Your task to perform on an android device: Empty the shopping cart on amazon.com. Add "logitech g pro" to the cart on amazon.com, then select checkout. Image 0: 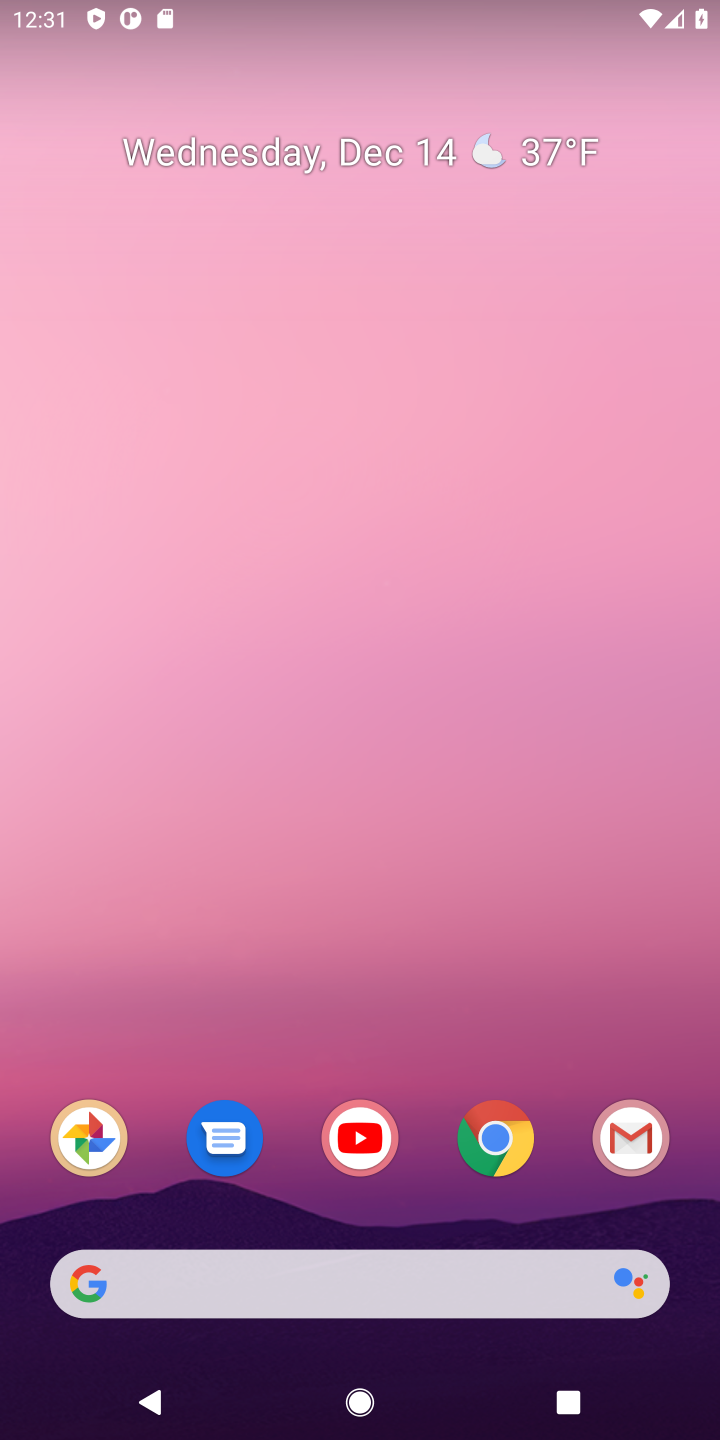
Step 0: click (498, 1145)
Your task to perform on an android device: Empty the shopping cart on amazon.com. Add "logitech g pro" to the cart on amazon.com, then select checkout. Image 1: 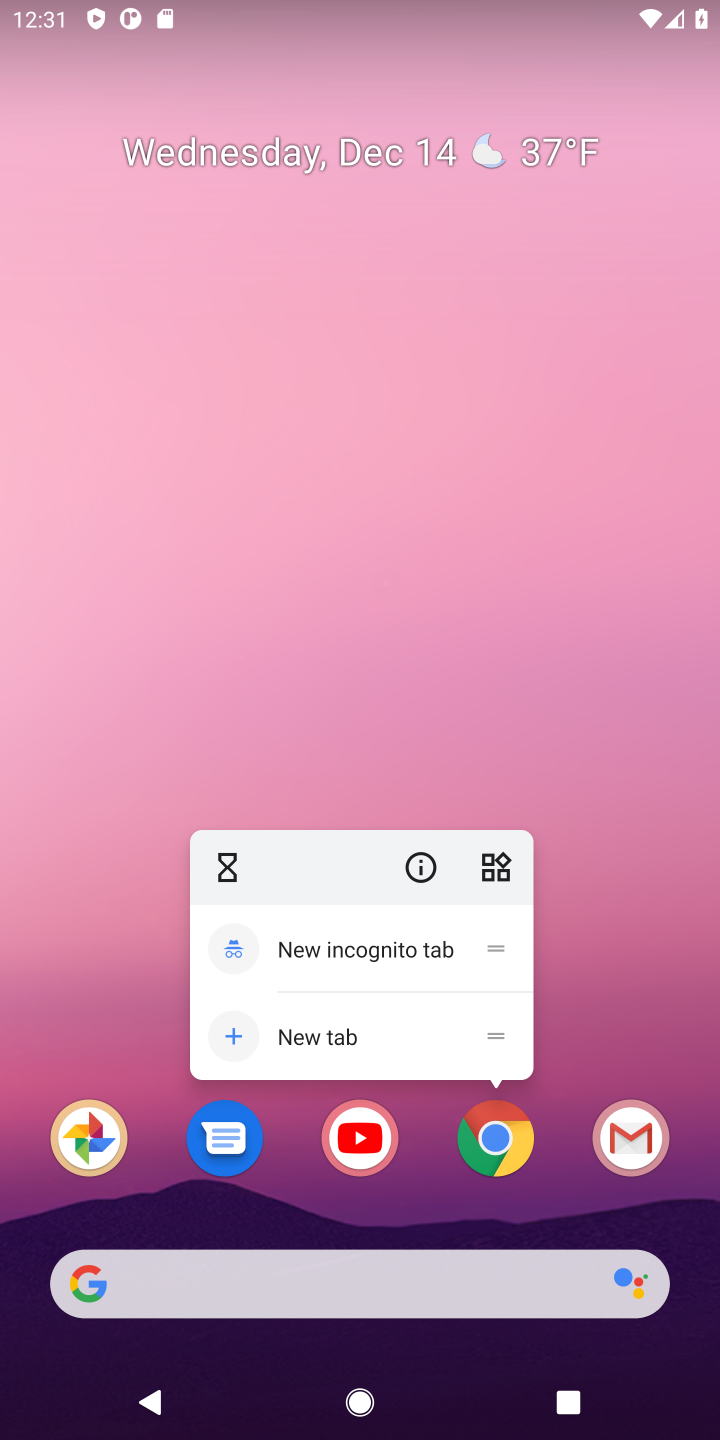
Step 1: click (493, 1124)
Your task to perform on an android device: Empty the shopping cart on amazon.com. Add "logitech g pro" to the cart on amazon.com, then select checkout. Image 2: 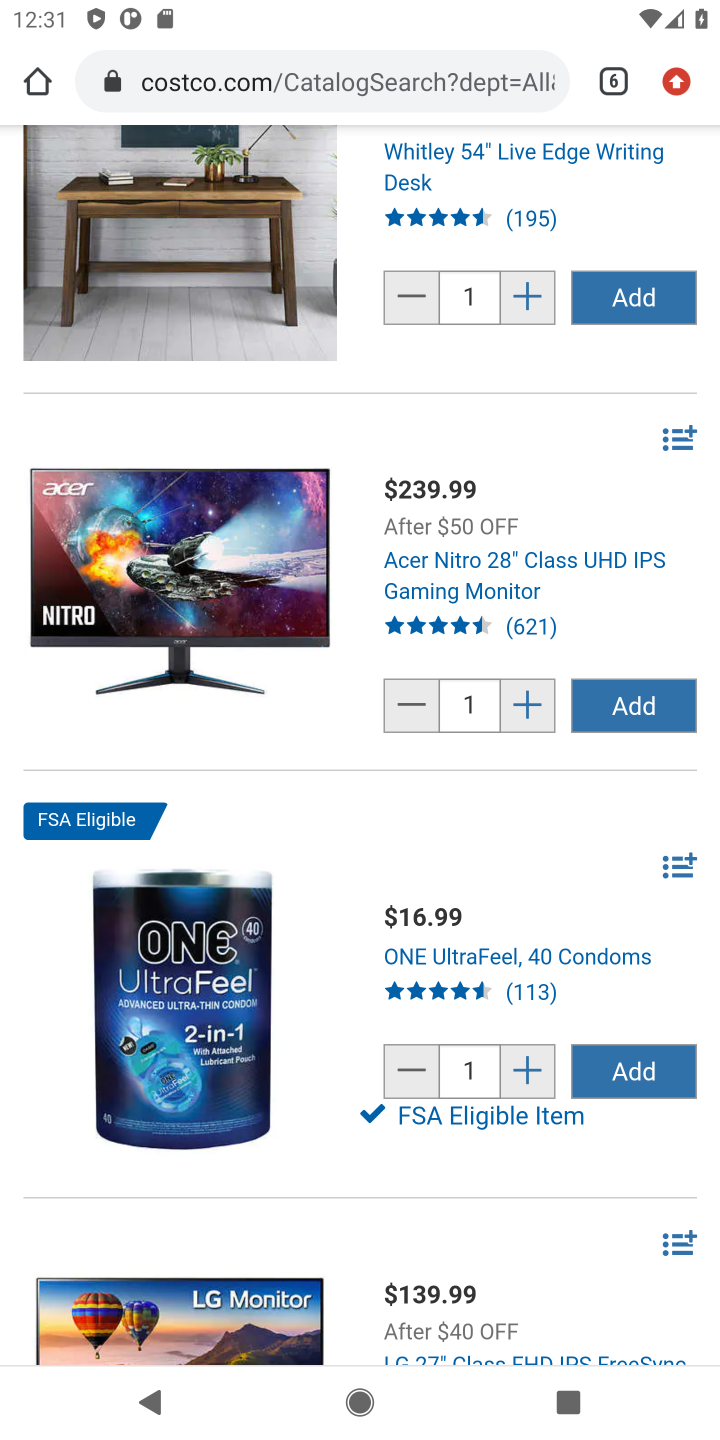
Step 2: click (615, 70)
Your task to perform on an android device: Empty the shopping cart on amazon.com. Add "logitech g pro" to the cart on amazon.com, then select checkout. Image 3: 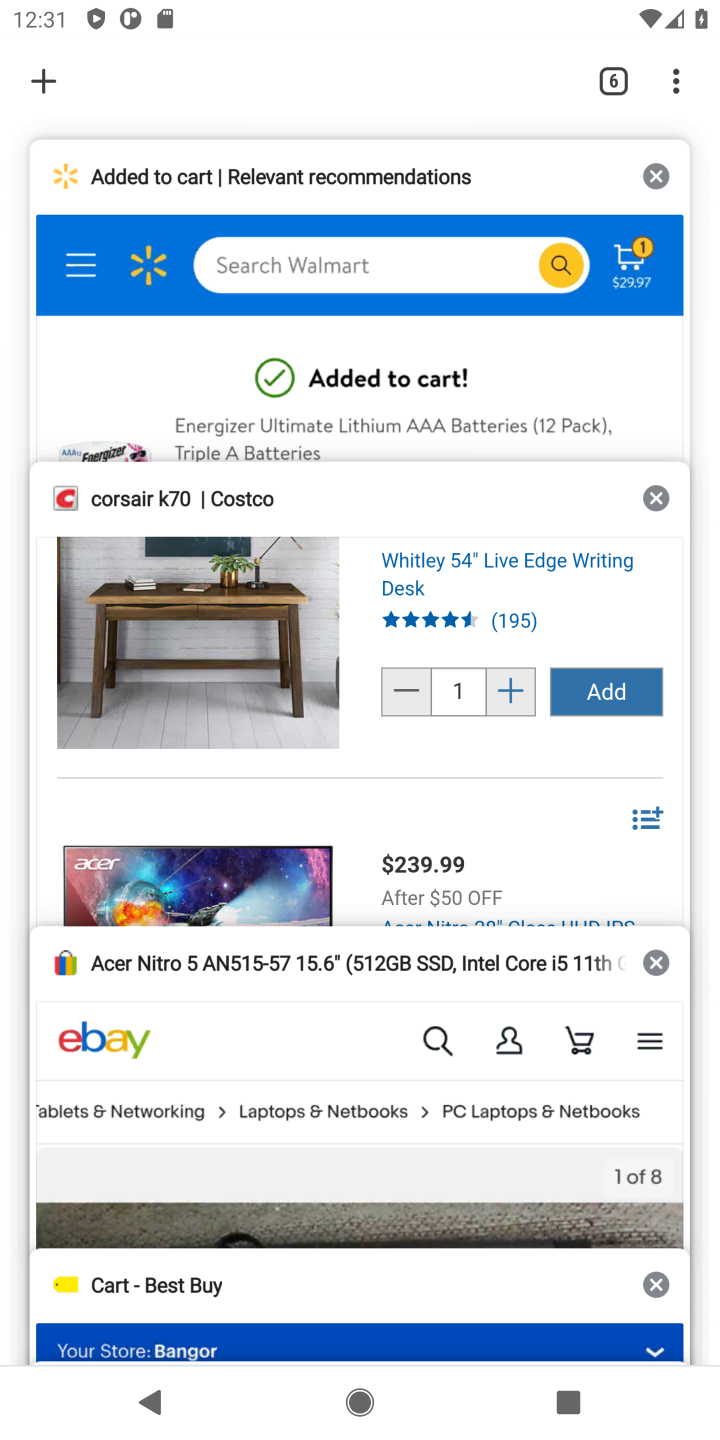
Step 3: drag from (239, 1308) to (376, 707)
Your task to perform on an android device: Empty the shopping cart on amazon.com. Add "logitech g pro" to the cart on amazon.com, then select checkout. Image 4: 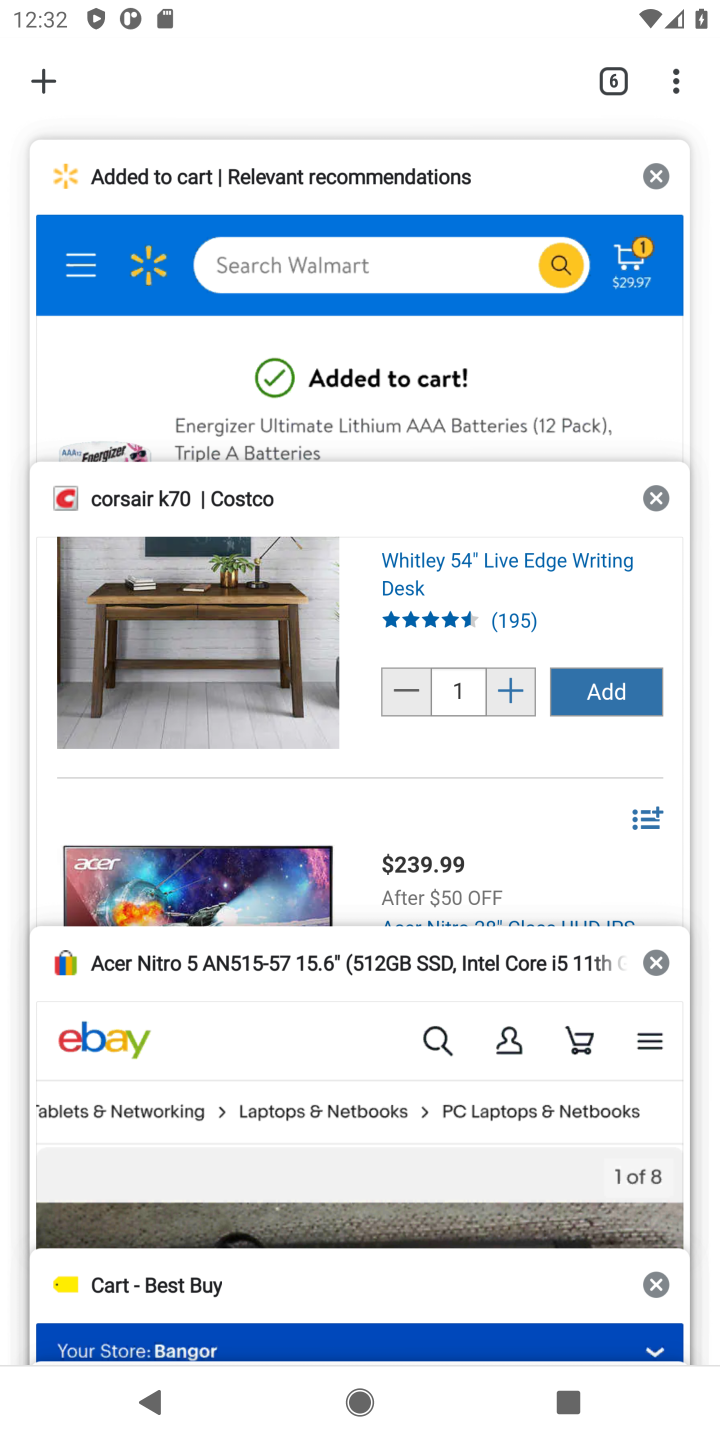
Step 4: drag from (330, 1322) to (458, 480)
Your task to perform on an android device: Empty the shopping cart on amazon.com. Add "logitech g pro" to the cart on amazon.com, then select checkout. Image 5: 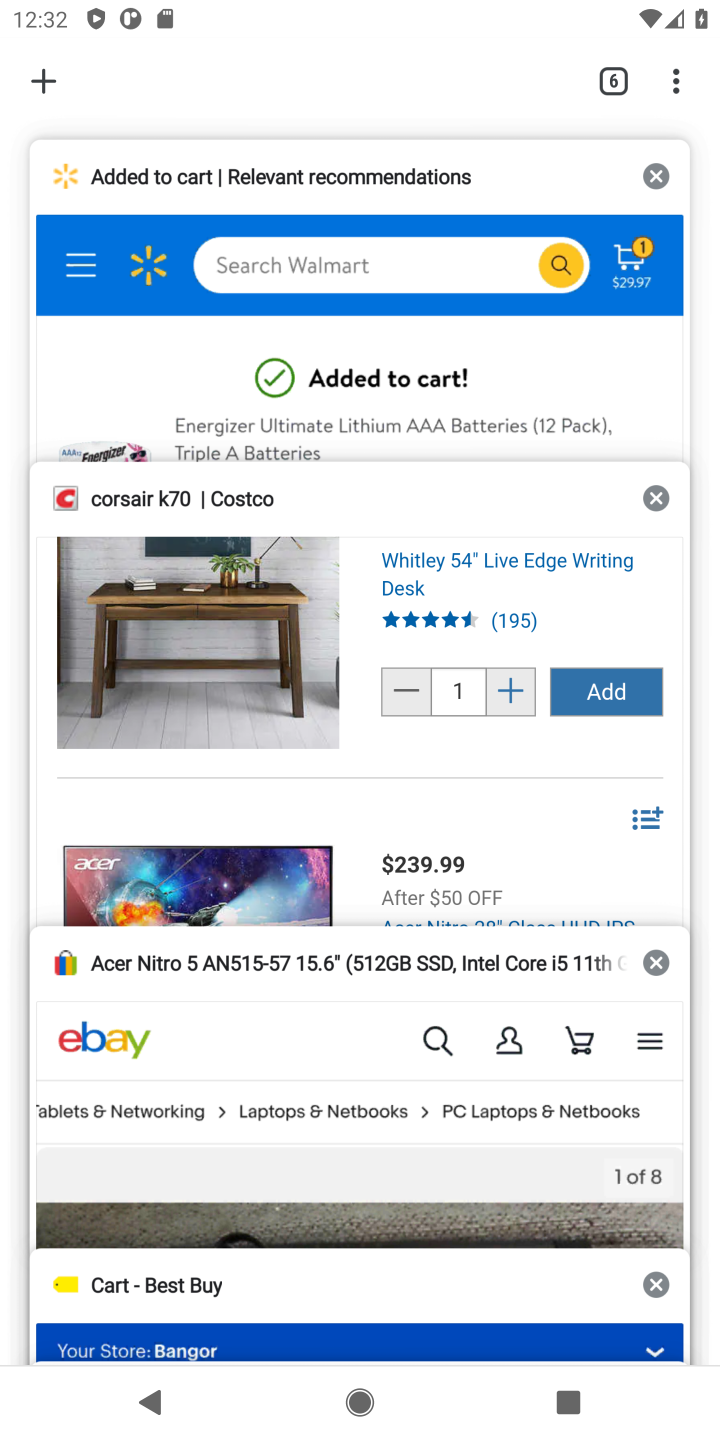
Step 5: drag from (389, 1271) to (388, 458)
Your task to perform on an android device: Empty the shopping cart on amazon.com. Add "logitech g pro" to the cart on amazon.com, then select checkout. Image 6: 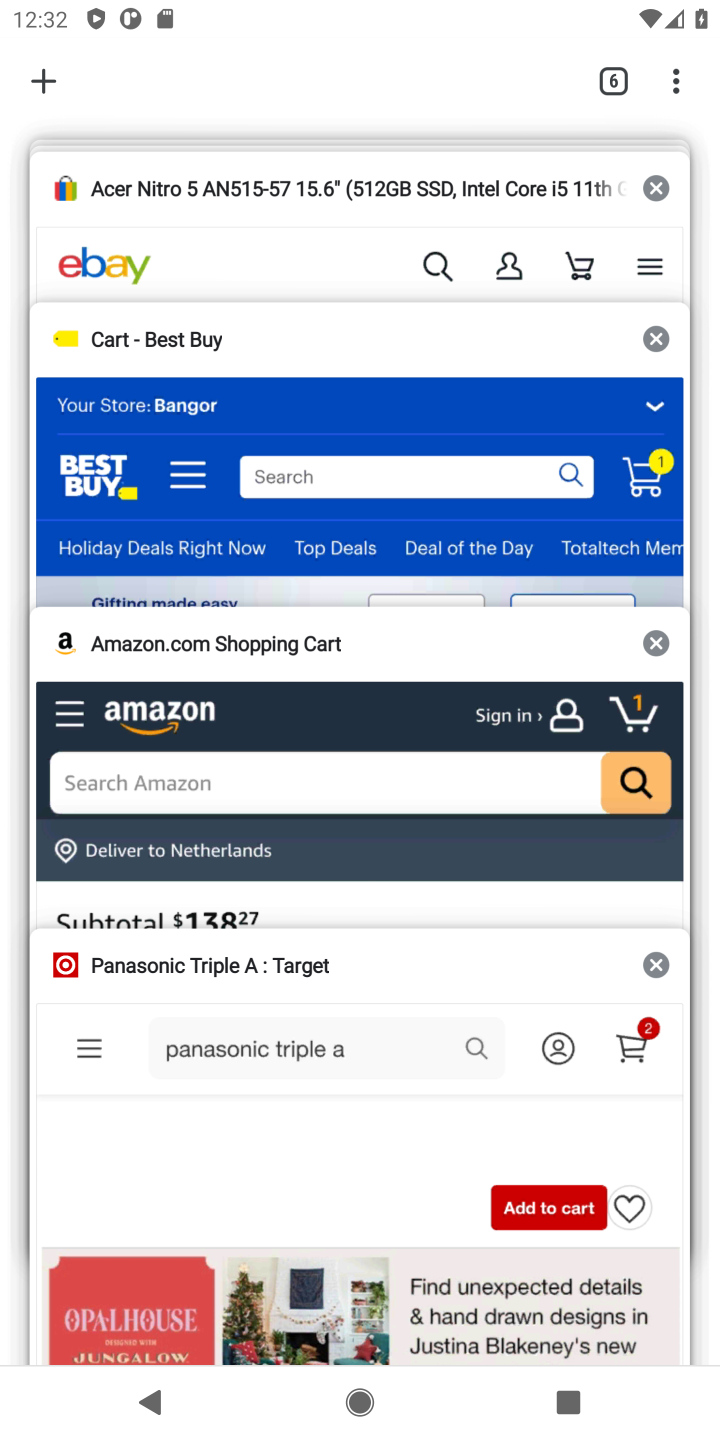
Step 6: click (402, 773)
Your task to perform on an android device: Empty the shopping cart on amazon.com. Add "logitech g pro" to the cart on amazon.com, then select checkout. Image 7: 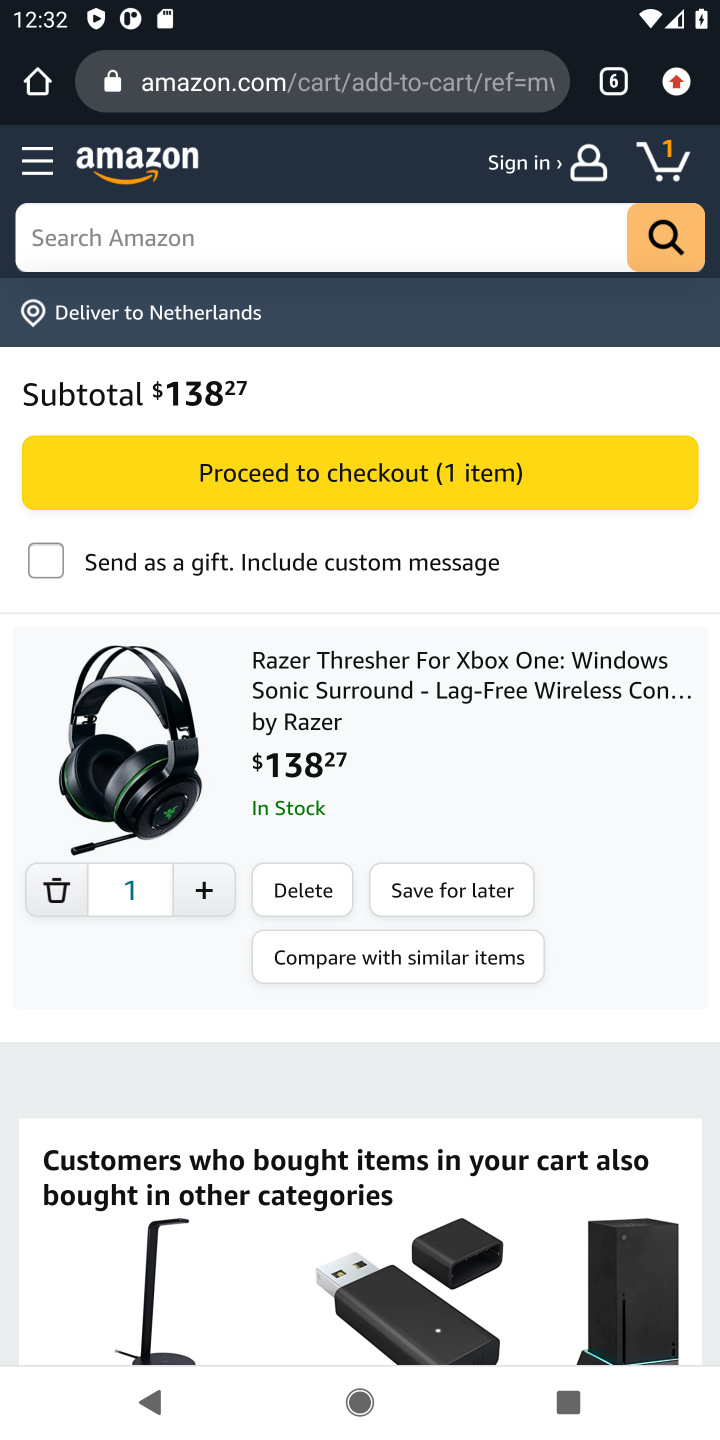
Step 7: click (304, 891)
Your task to perform on an android device: Empty the shopping cart on amazon.com. Add "logitech g pro" to the cart on amazon.com, then select checkout. Image 8: 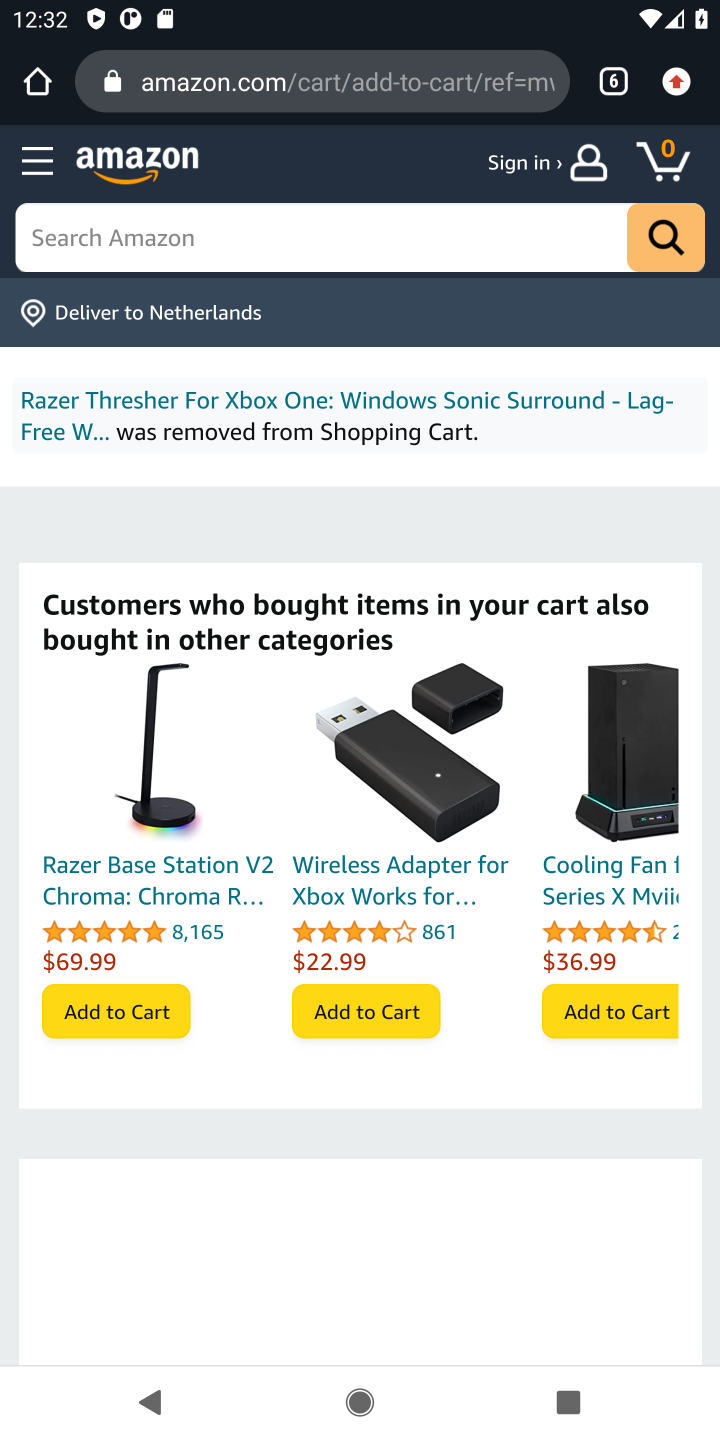
Step 8: click (140, 227)
Your task to perform on an android device: Empty the shopping cart on amazon.com. Add "logitech g pro" to the cart on amazon.com, then select checkout. Image 9: 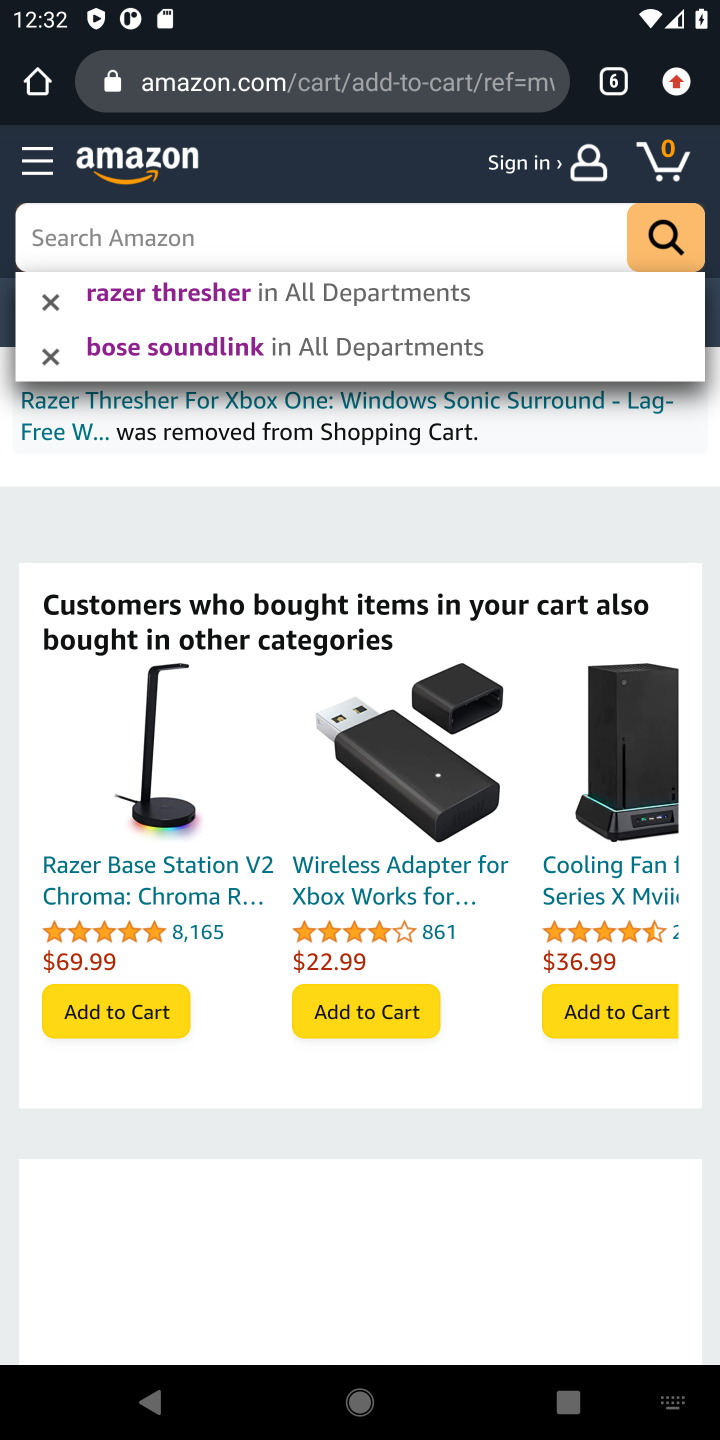
Step 9: type "logitech g pro"
Your task to perform on an android device: Empty the shopping cart on amazon.com. Add "logitech g pro" to the cart on amazon.com, then select checkout. Image 10: 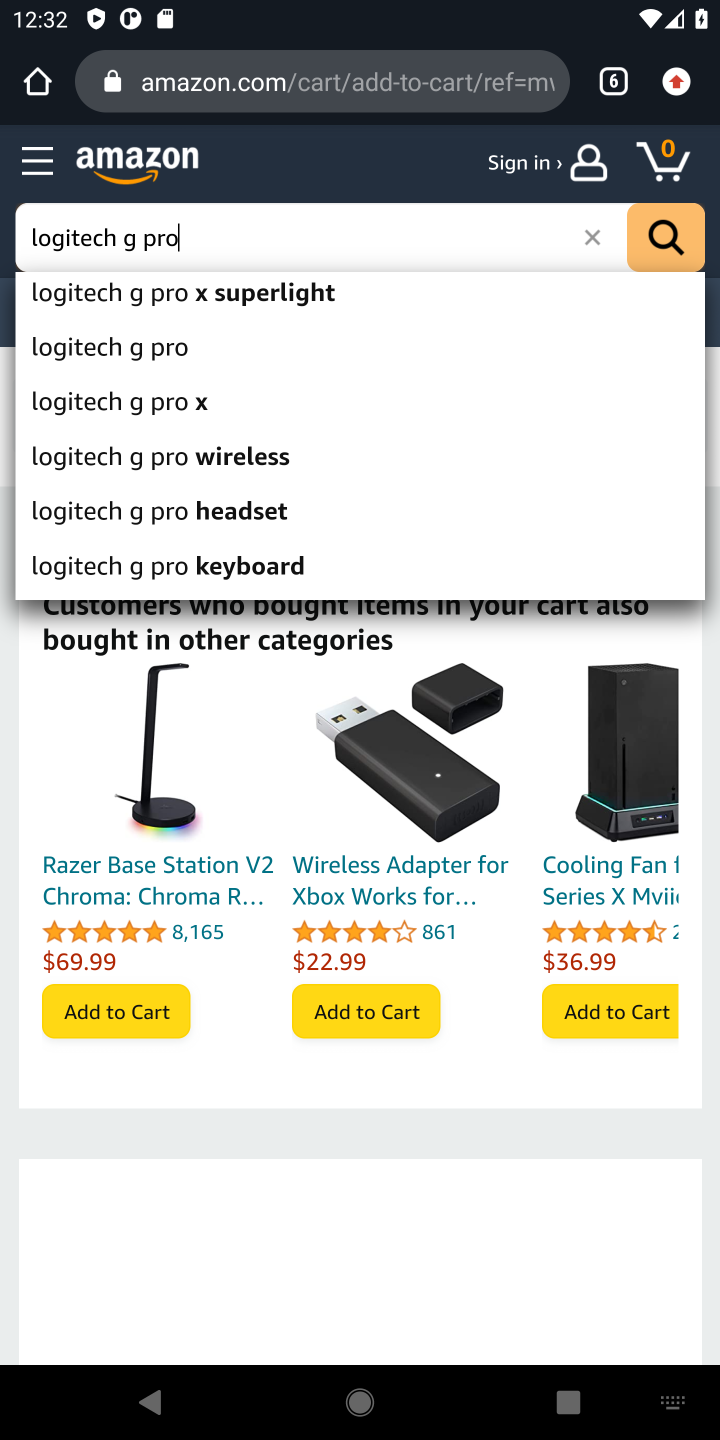
Step 10: click (166, 344)
Your task to perform on an android device: Empty the shopping cart on amazon.com. Add "logitech g pro" to the cart on amazon.com, then select checkout. Image 11: 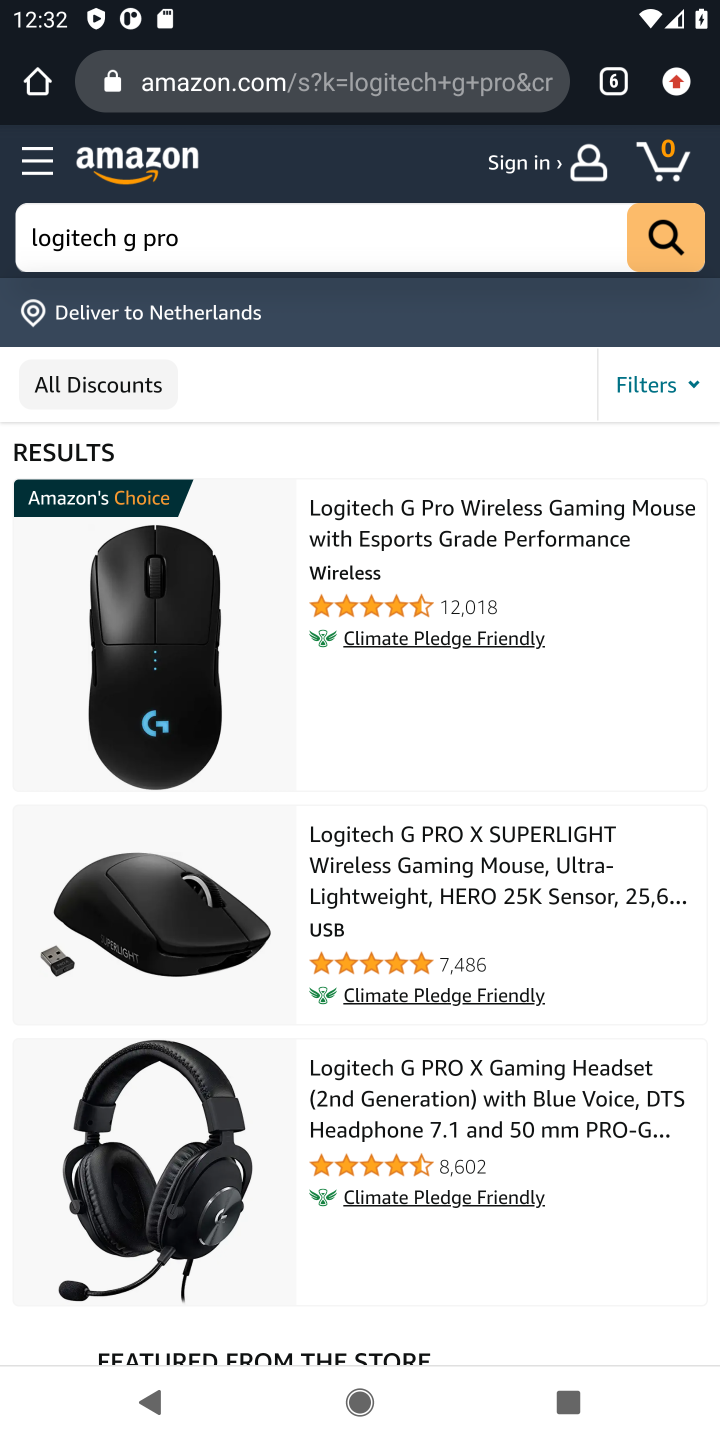
Step 11: click (384, 519)
Your task to perform on an android device: Empty the shopping cart on amazon.com. Add "logitech g pro" to the cart on amazon.com, then select checkout. Image 12: 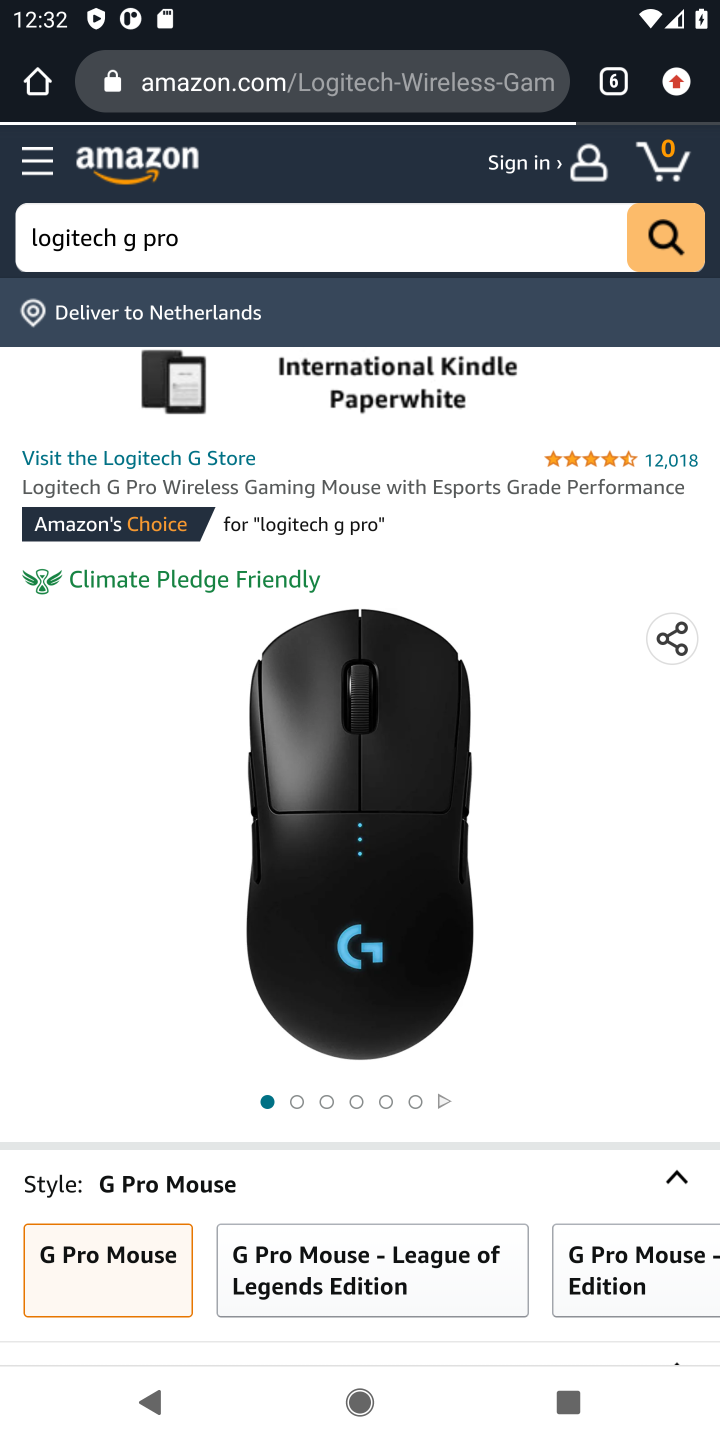
Step 12: drag from (514, 1158) to (359, 480)
Your task to perform on an android device: Empty the shopping cart on amazon.com. Add "logitech g pro" to the cart on amazon.com, then select checkout. Image 13: 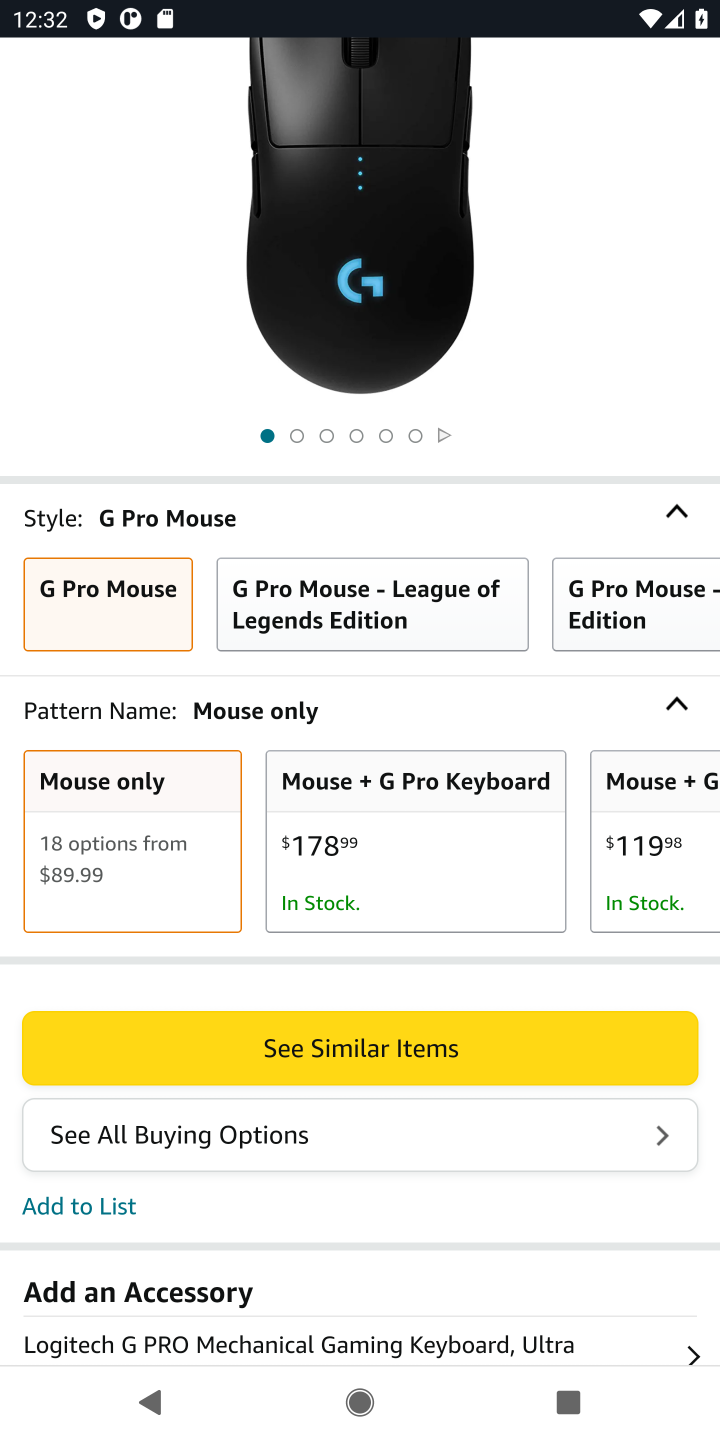
Step 13: click (440, 1058)
Your task to perform on an android device: Empty the shopping cart on amazon.com. Add "logitech g pro" to the cart on amazon.com, then select checkout. Image 14: 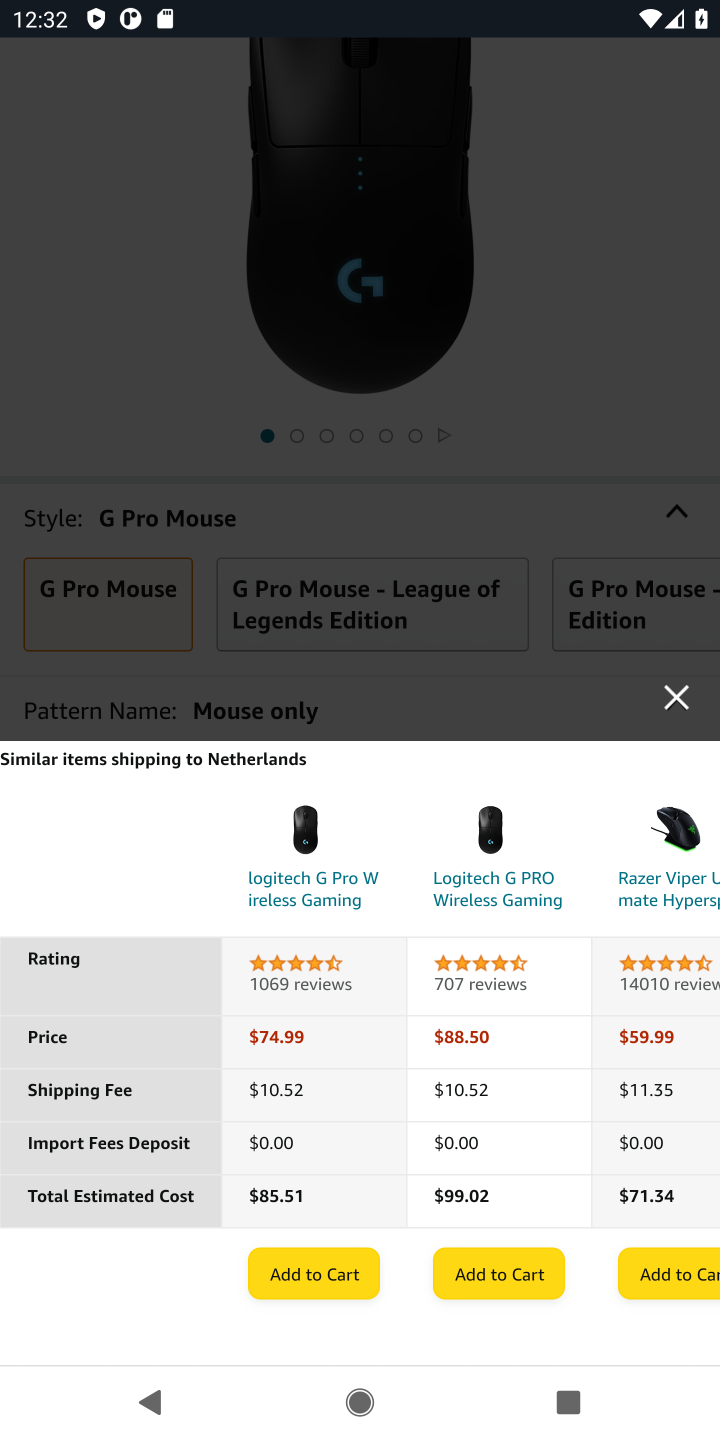
Step 14: click (312, 1268)
Your task to perform on an android device: Empty the shopping cart on amazon.com. Add "logitech g pro" to the cart on amazon.com, then select checkout. Image 15: 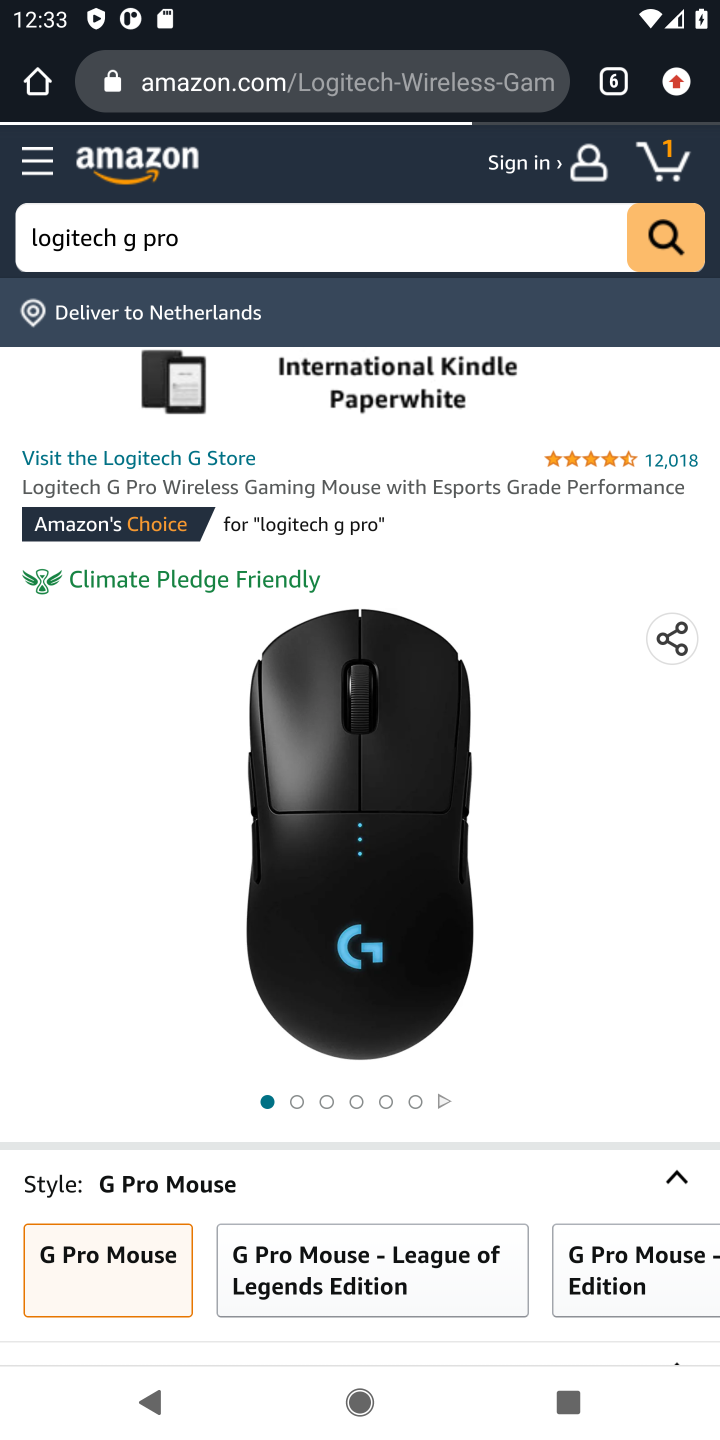
Step 15: task complete